Your task to perform on an android device: toggle javascript in the chrome app Image 0: 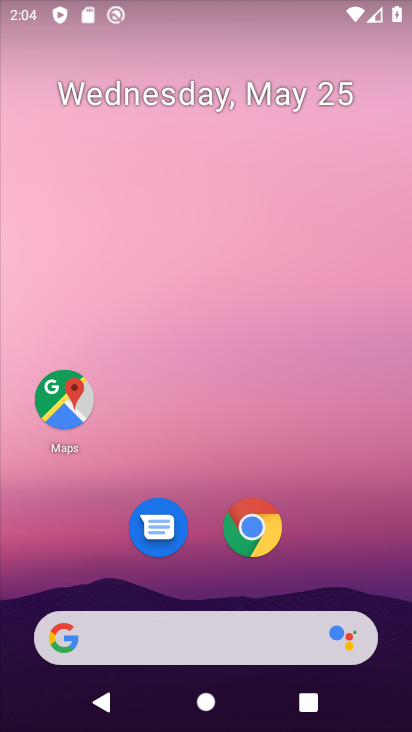
Step 0: click (217, 90)
Your task to perform on an android device: toggle javascript in the chrome app Image 1: 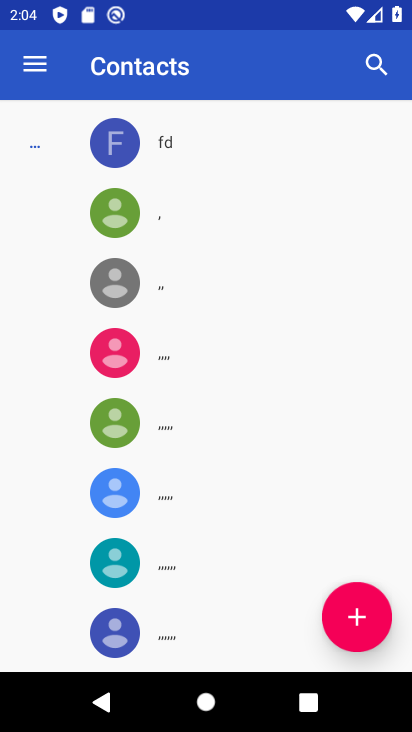
Step 1: press home button
Your task to perform on an android device: toggle javascript in the chrome app Image 2: 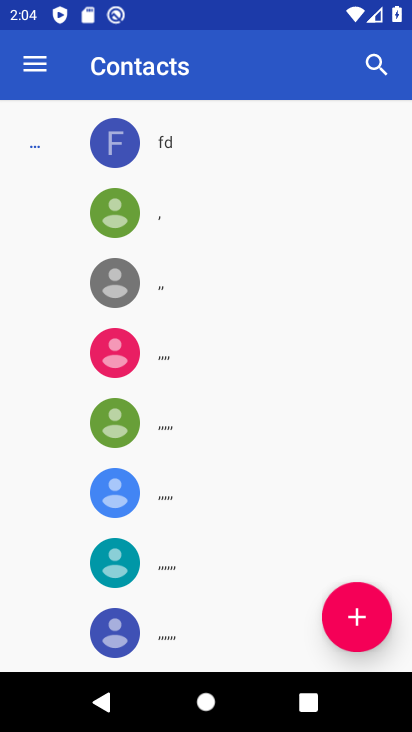
Step 2: drag from (244, 566) to (347, 33)
Your task to perform on an android device: toggle javascript in the chrome app Image 3: 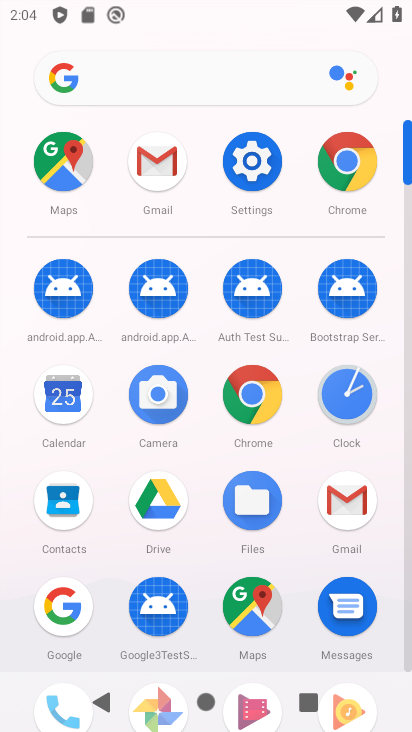
Step 3: click (332, 159)
Your task to perform on an android device: toggle javascript in the chrome app Image 4: 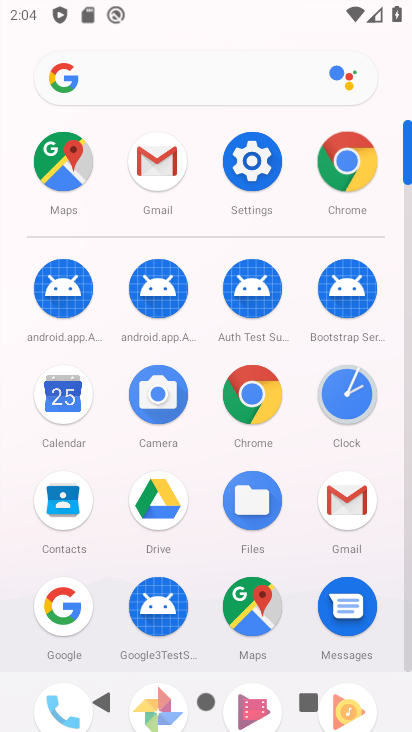
Step 4: click (332, 159)
Your task to perform on an android device: toggle javascript in the chrome app Image 5: 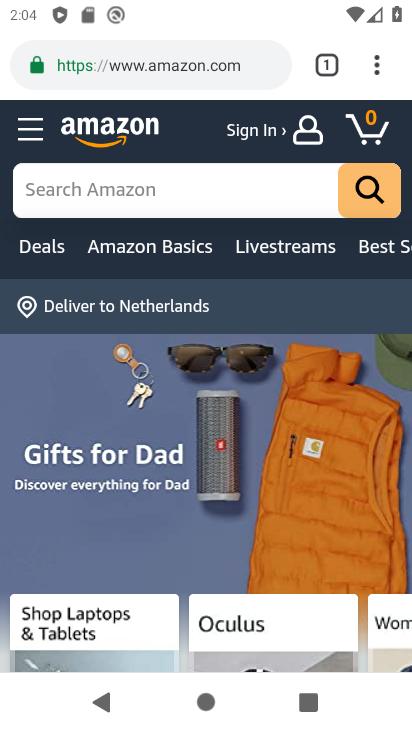
Step 5: click (371, 74)
Your task to perform on an android device: toggle javascript in the chrome app Image 6: 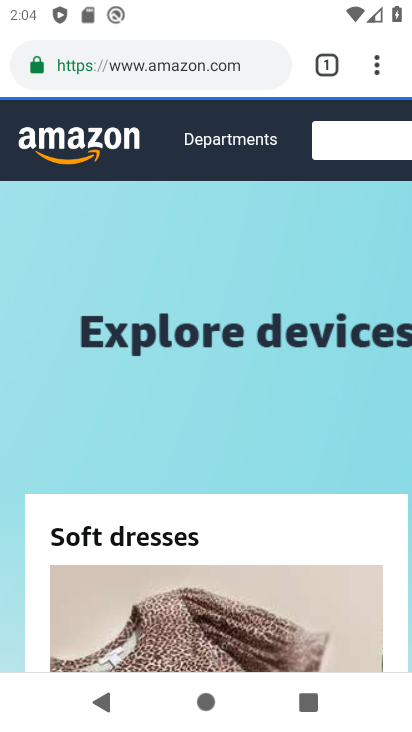
Step 6: click (381, 56)
Your task to perform on an android device: toggle javascript in the chrome app Image 7: 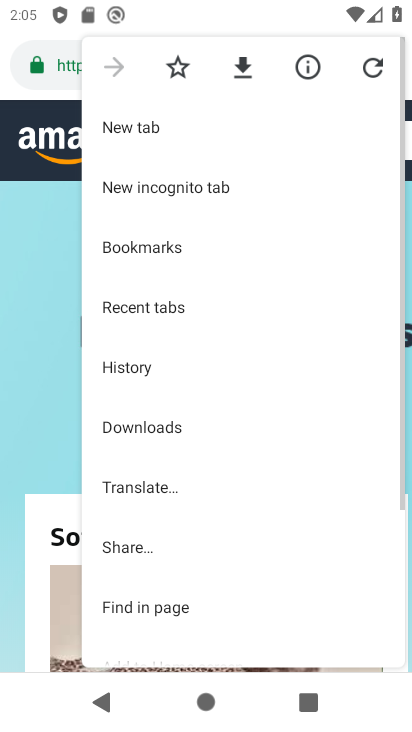
Step 7: drag from (208, 562) to (330, 9)
Your task to perform on an android device: toggle javascript in the chrome app Image 8: 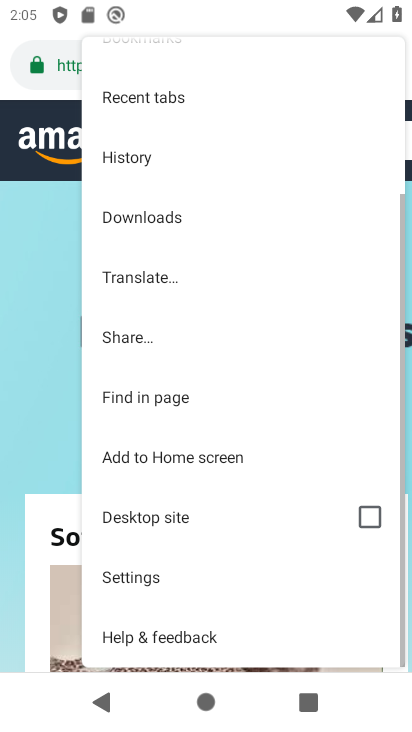
Step 8: click (165, 560)
Your task to perform on an android device: toggle javascript in the chrome app Image 9: 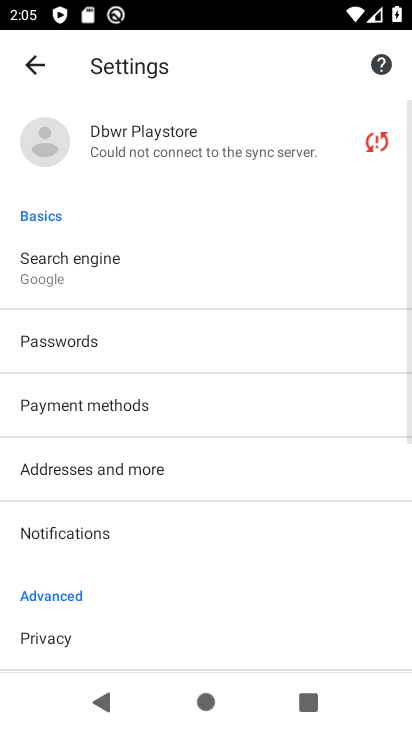
Step 9: drag from (160, 592) to (200, 310)
Your task to perform on an android device: toggle javascript in the chrome app Image 10: 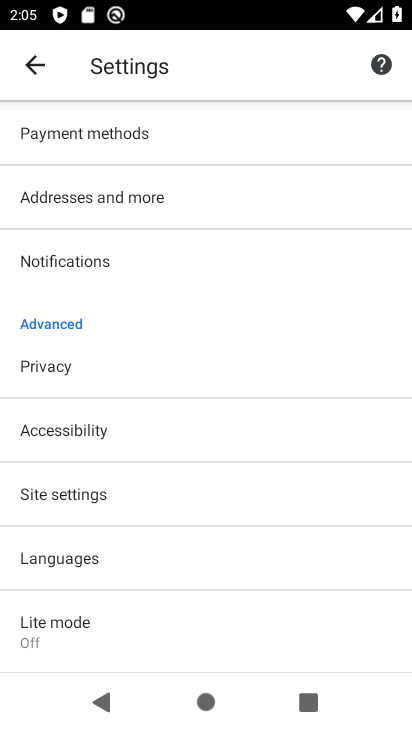
Step 10: click (127, 494)
Your task to perform on an android device: toggle javascript in the chrome app Image 11: 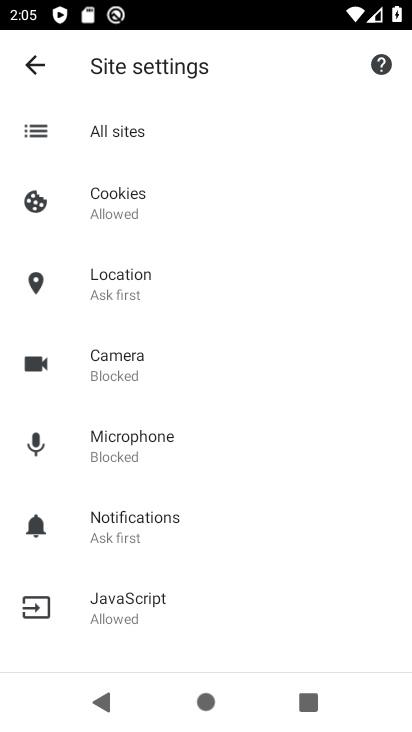
Step 11: click (195, 622)
Your task to perform on an android device: toggle javascript in the chrome app Image 12: 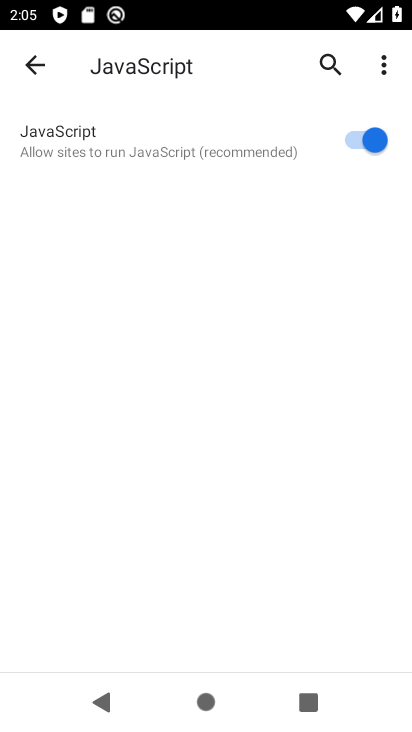
Step 12: drag from (250, 607) to (366, 213)
Your task to perform on an android device: toggle javascript in the chrome app Image 13: 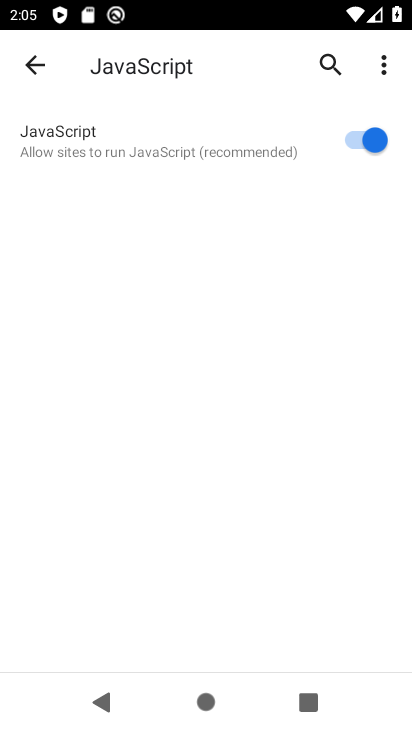
Step 13: click (185, 459)
Your task to perform on an android device: toggle javascript in the chrome app Image 14: 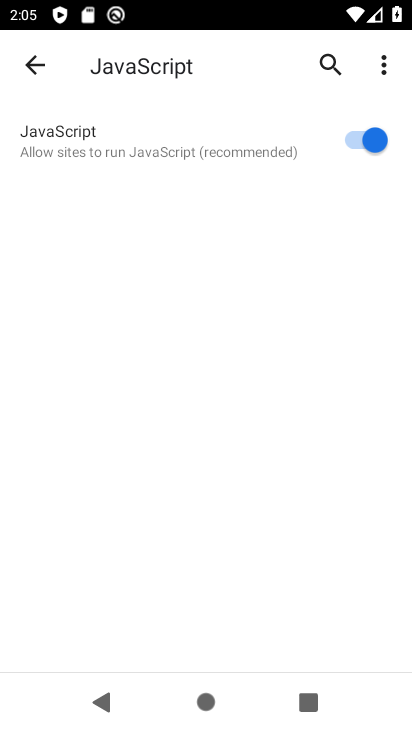
Step 14: click (283, 383)
Your task to perform on an android device: toggle javascript in the chrome app Image 15: 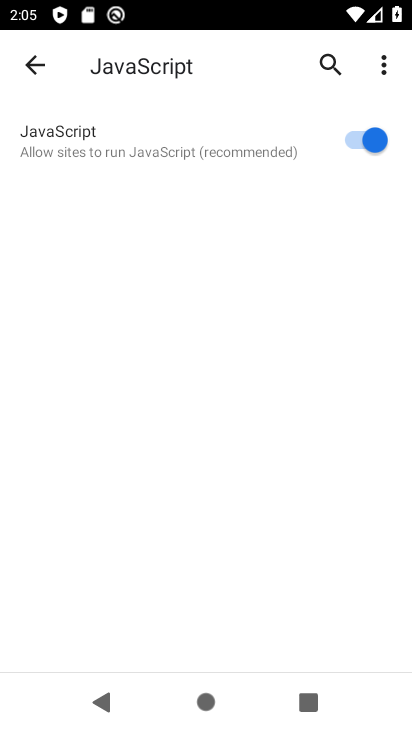
Step 15: click (336, 127)
Your task to perform on an android device: toggle javascript in the chrome app Image 16: 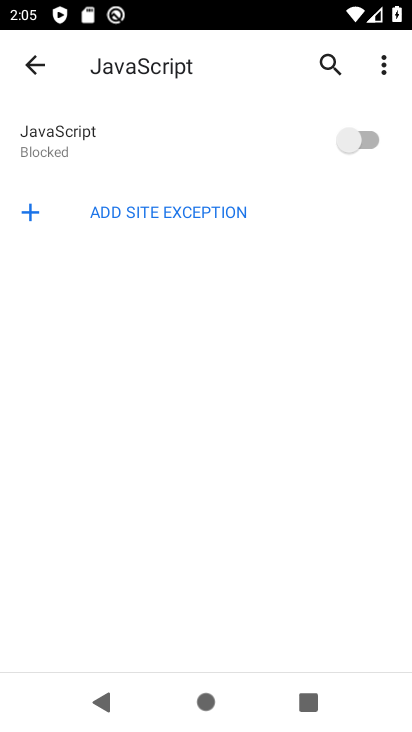
Step 16: task complete